Your task to perform on an android device: turn smart compose on in the gmail app Image 0: 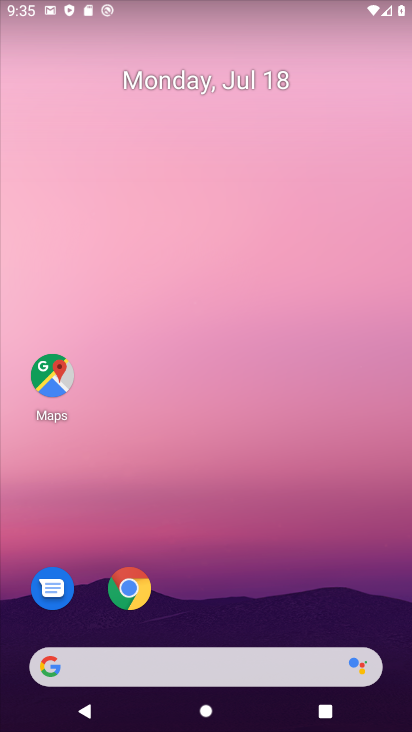
Step 0: drag from (235, 720) to (228, 259)
Your task to perform on an android device: turn smart compose on in the gmail app Image 1: 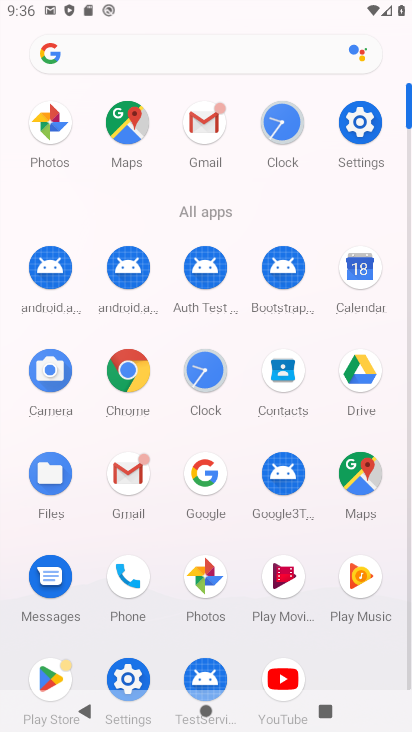
Step 1: click (135, 471)
Your task to perform on an android device: turn smart compose on in the gmail app Image 2: 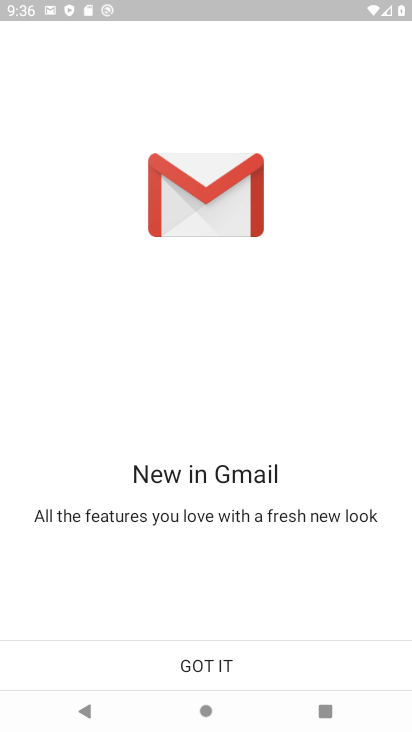
Step 2: click (186, 653)
Your task to perform on an android device: turn smart compose on in the gmail app Image 3: 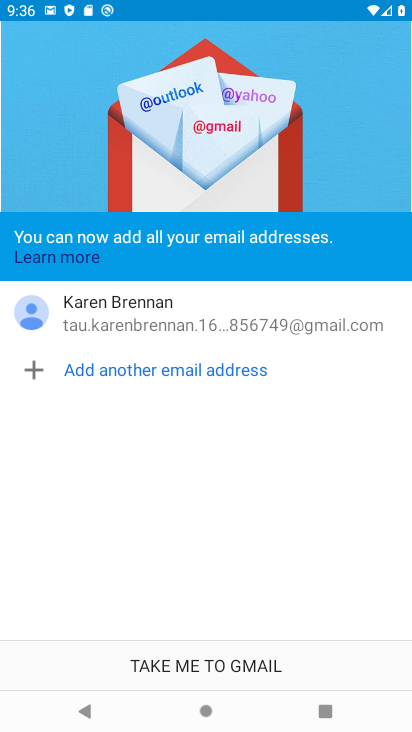
Step 3: click (195, 664)
Your task to perform on an android device: turn smart compose on in the gmail app Image 4: 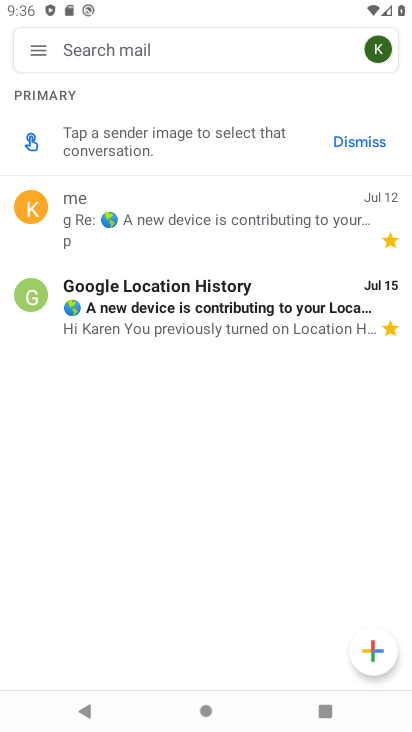
Step 4: click (35, 52)
Your task to perform on an android device: turn smart compose on in the gmail app Image 5: 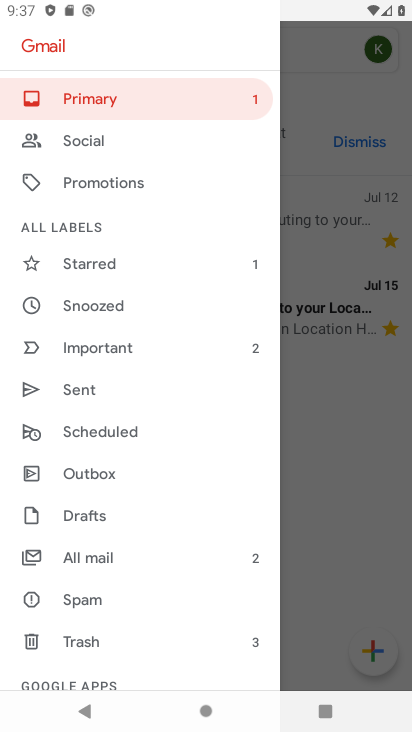
Step 5: drag from (106, 661) to (110, 309)
Your task to perform on an android device: turn smart compose on in the gmail app Image 6: 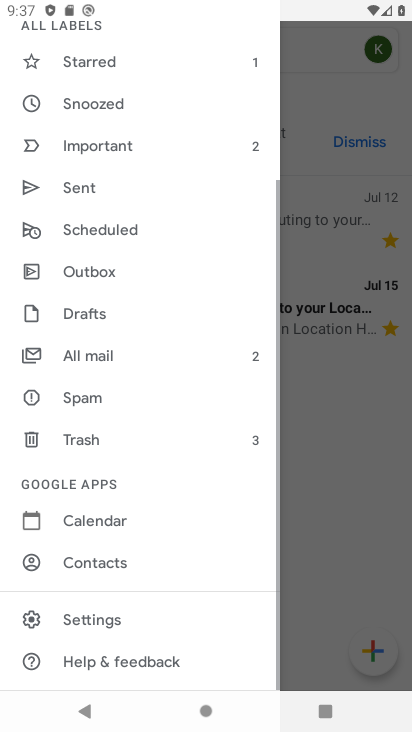
Step 6: click (78, 619)
Your task to perform on an android device: turn smart compose on in the gmail app Image 7: 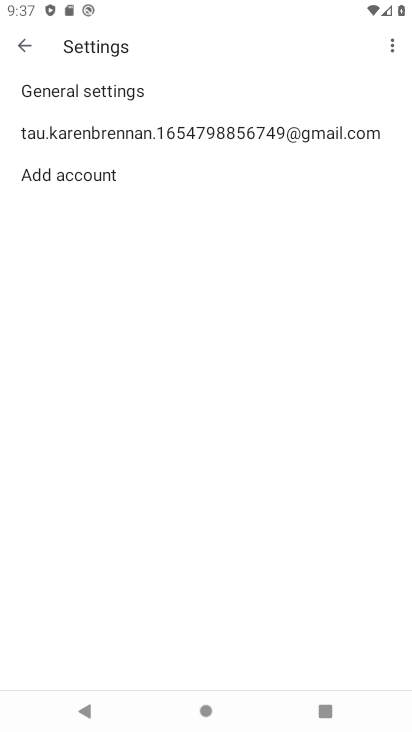
Step 7: click (75, 126)
Your task to perform on an android device: turn smart compose on in the gmail app Image 8: 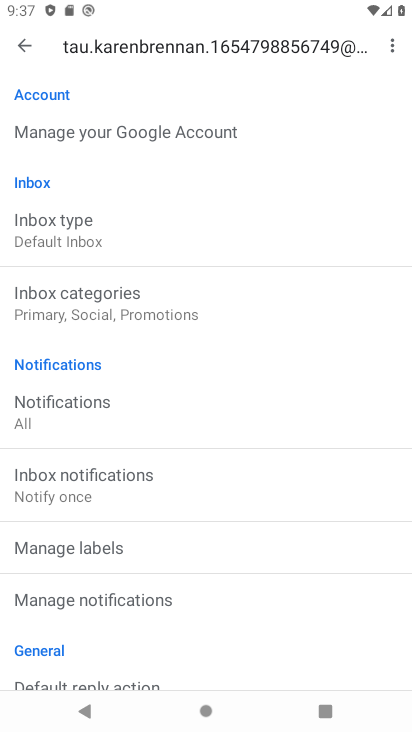
Step 8: task complete